Your task to perform on an android device: allow cookies in the chrome app Image 0: 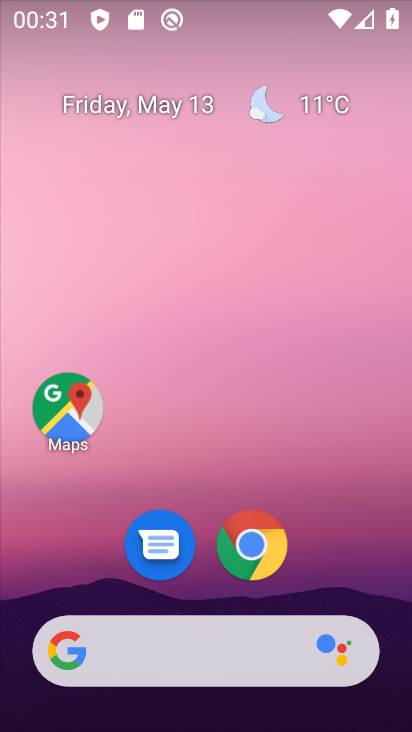
Step 0: click (271, 553)
Your task to perform on an android device: allow cookies in the chrome app Image 1: 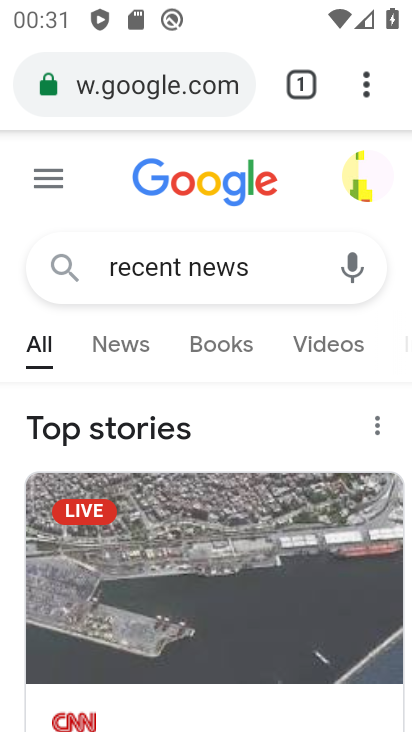
Step 1: drag from (365, 96) to (140, 599)
Your task to perform on an android device: allow cookies in the chrome app Image 2: 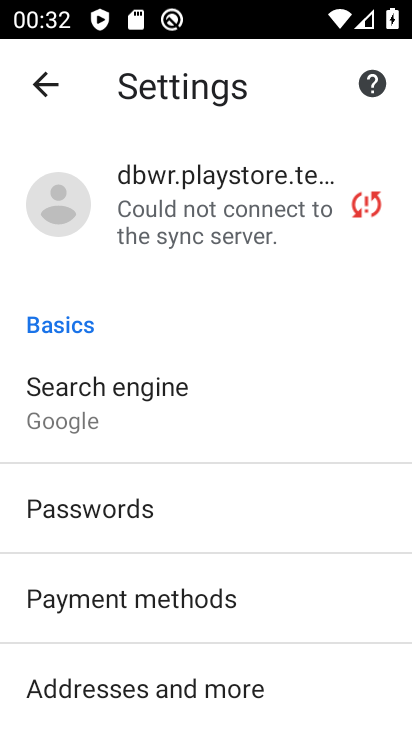
Step 2: drag from (197, 549) to (197, 216)
Your task to perform on an android device: allow cookies in the chrome app Image 3: 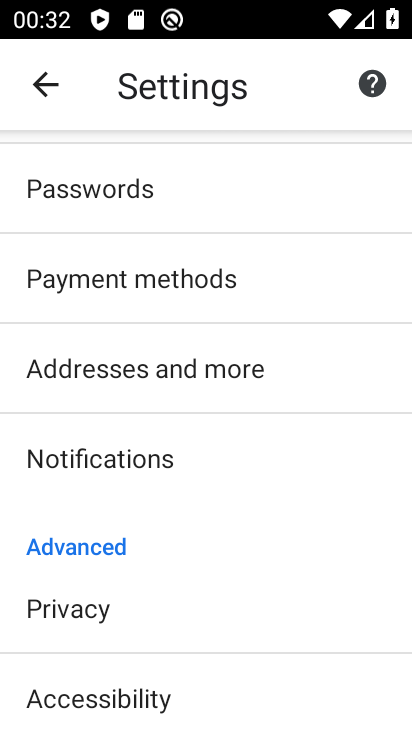
Step 3: drag from (218, 664) to (226, 441)
Your task to perform on an android device: allow cookies in the chrome app Image 4: 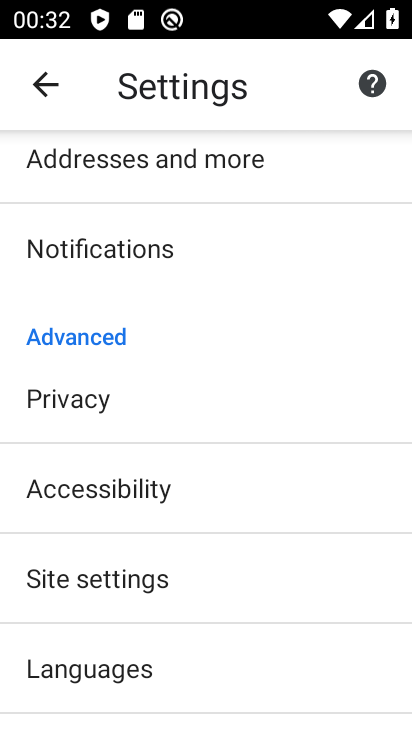
Step 4: drag from (137, 675) to (145, 289)
Your task to perform on an android device: allow cookies in the chrome app Image 5: 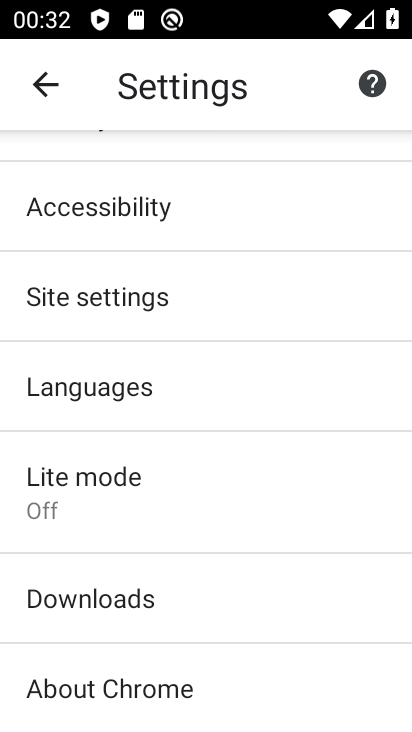
Step 5: drag from (137, 624) to (151, 255)
Your task to perform on an android device: allow cookies in the chrome app Image 6: 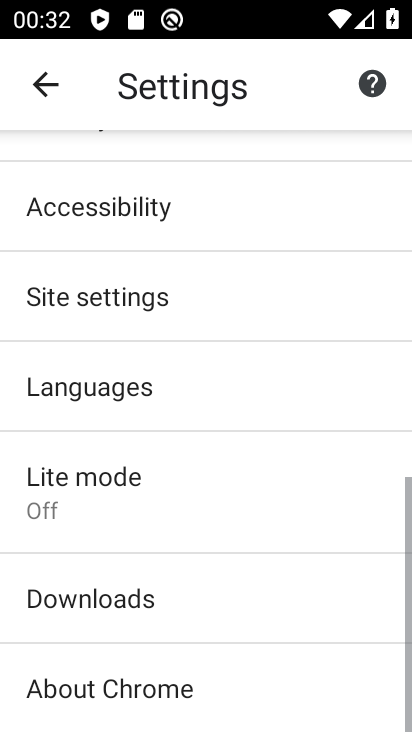
Step 6: drag from (192, 402) to (192, 652)
Your task to perform on an android device: allow cookies in the chrome app Image 7: 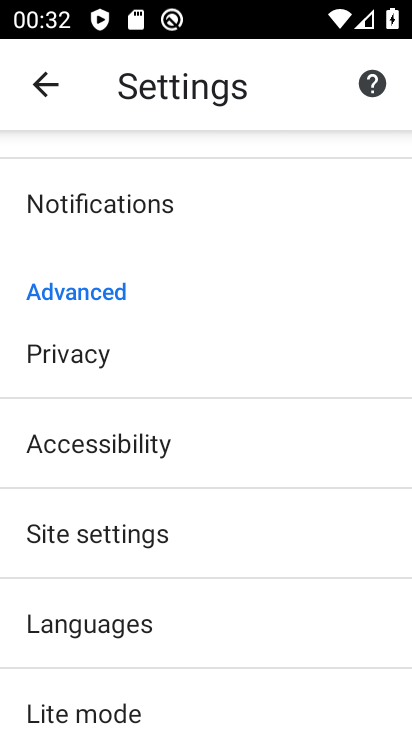
Step 7: drag from (215, 328) to (248, 728)
Your task to perform on an android device: allow cookies in the chrome app Image 8: 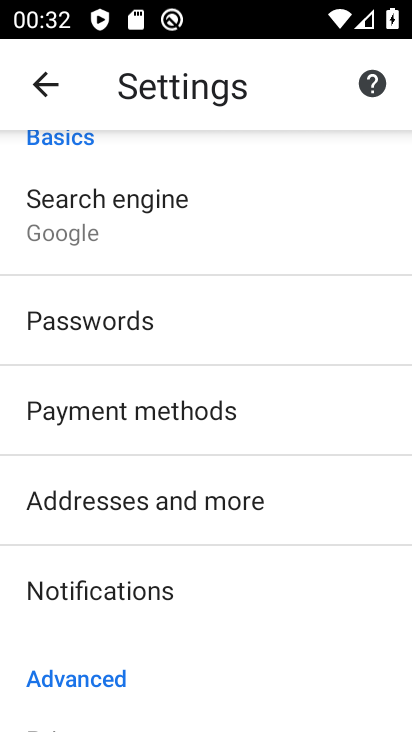
Step 8: drag from (183, 353) to (176, 283)
Your task to perform on an android device: allow cookies in the chrome app Image 9: 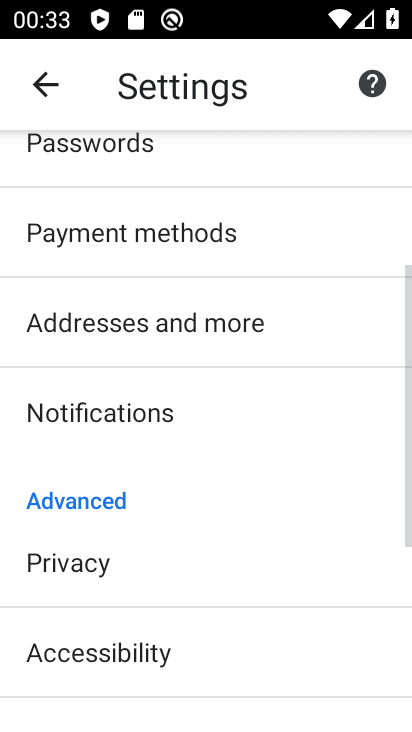
Step 9: drag from (225, 645) to (206, 299)
Your task to perform on an android device: allow cookies in the chrome app Image 10: 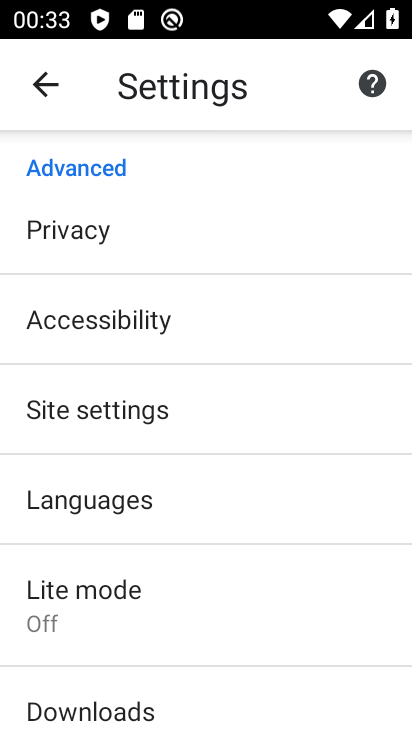
Step 10: click (179, 424)
Your task to perform on an android device: allow cookies in the chrome app Image 11: 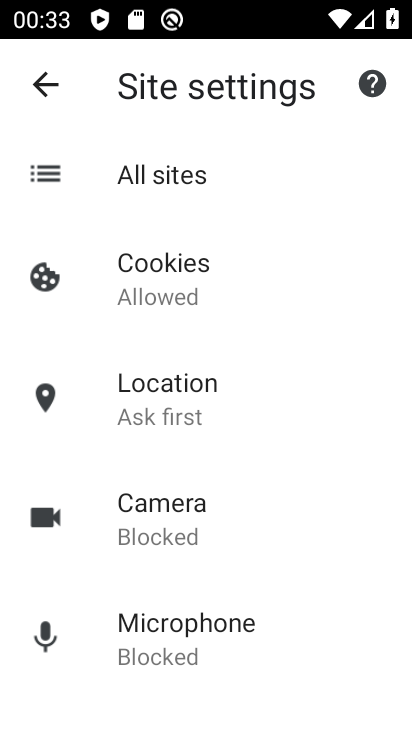
Step 11: click (181, 294)
Your task to perform on an android device: allow cookies in the chrome app Image 12: 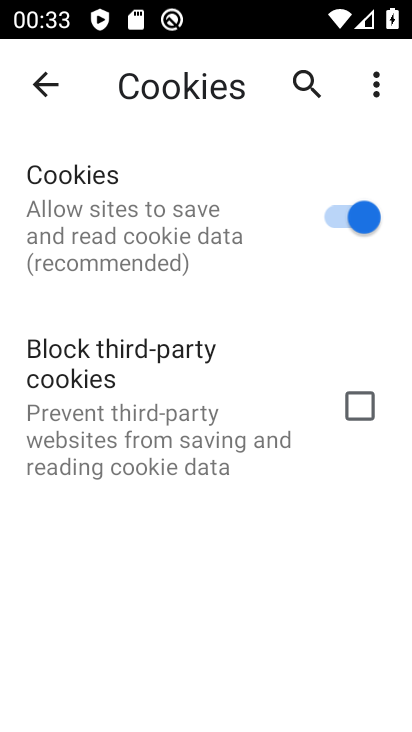
Step 12: task complete